Your task to perform on an android device: Open Google Maps and go to "Timeline" Image 0: 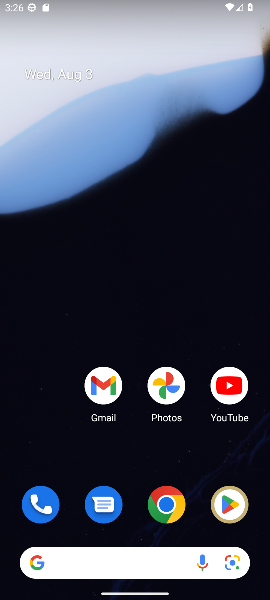
Step 0: drag from (64, 460) to (142, 0)
Your task to perform on an android device: Open Google Maps and go to "Timeline" Image 1: 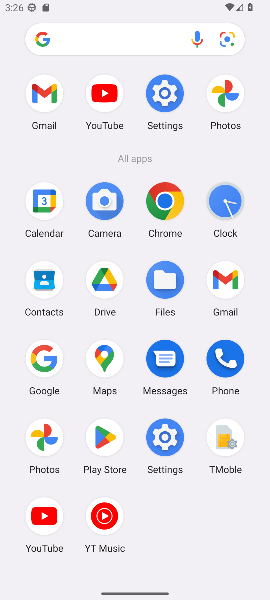
Step 1: click (112, 375)
Your task to perform on an android device: Open Google Maps and go to "Timeline" Image 2: 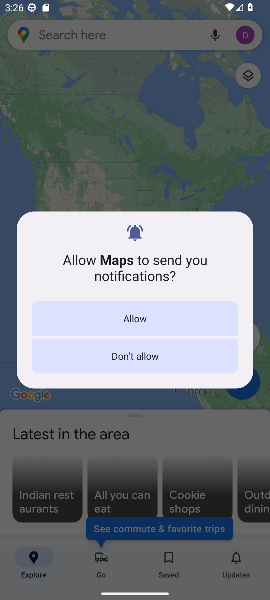
Step 2: click (166, 313)
Your task to perform on an android device: Open Google Maps and go to "Timeline" Image 3: 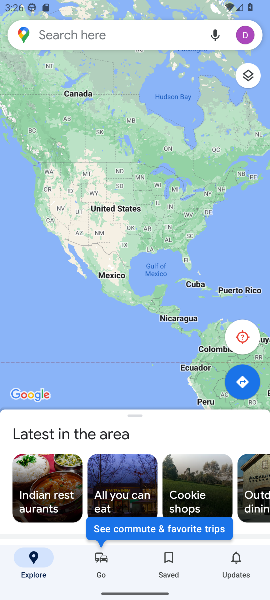
Step 3: click (20, 30)
Your task to perform on an android device: Open Google Maps and go to "Timeline" Image 4: 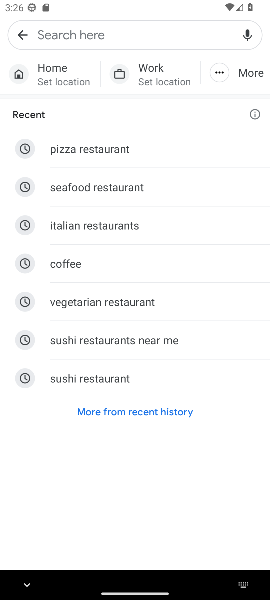
Step 4: click (18, 32)
Your task to perform on an android device: Open Google Maps and go to "Timeline" Image 5: 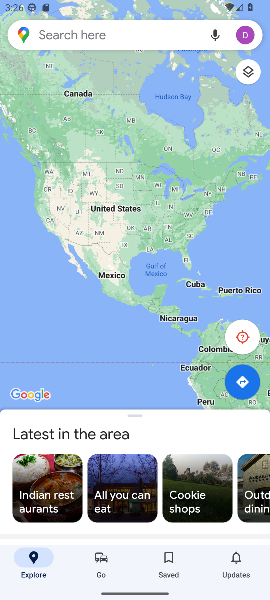
Step 5: drag from (66, 140) to (78, 428)
Your task to perform on an android device: Open Google Maps and go to "Timeline" Image 6: 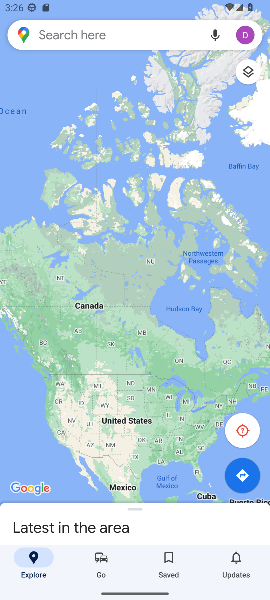
Step 6: drag from (134, 355) to (136, 214)
Your task to perform on an android device: Open Google Maps and go to "Timeline" Image 7: 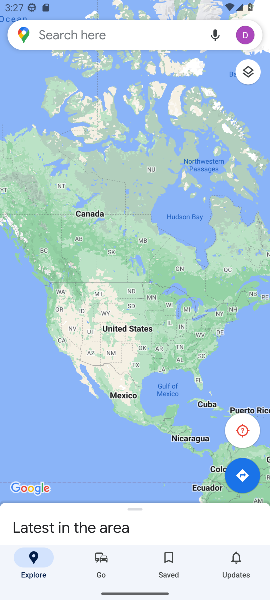
Step 7: click (242, 38)
Your task to perform on an android device: Open Google Maps and go to "Timeline" Image 8: 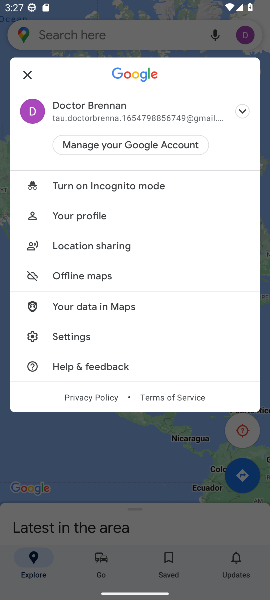
Step 8: click (89, 342)
Your task to perform on an android device: Open Google Maps and go to "Timeline" Image 9: 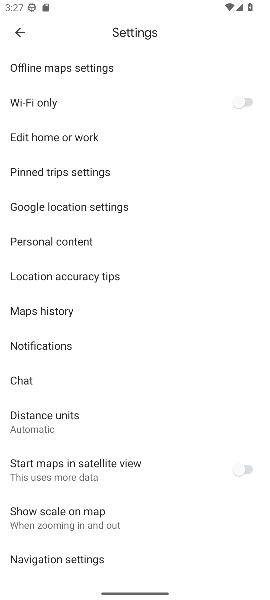
Step 9: task complete